Your task to perform on an android device: open the mobile data screen to see how much data has been used Image 0: 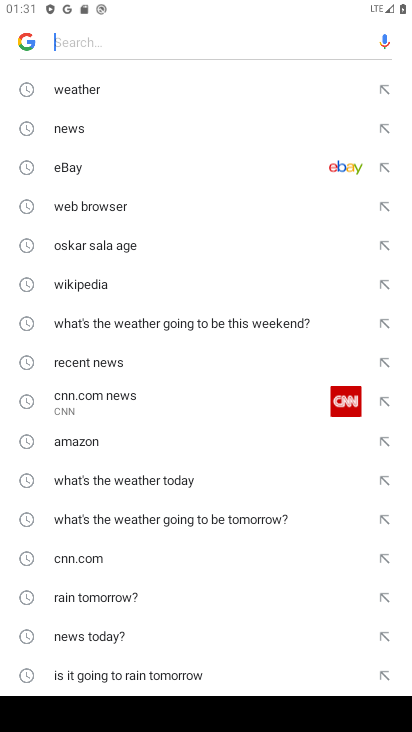
Step 0: press home button
Your task to perform on an android device: open the mobile data screen to see how much data has been used Image 1: 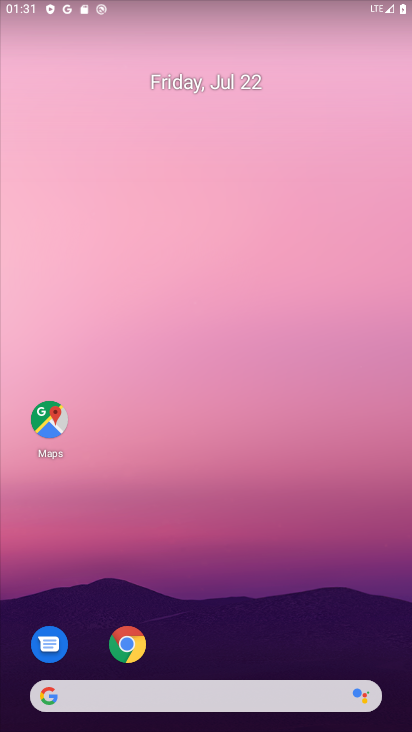
Step 1: drag from (51, 665) to (98, 6)
Your task to perform on an android device: open the mobile data screen to see how much data has been used Image 2: 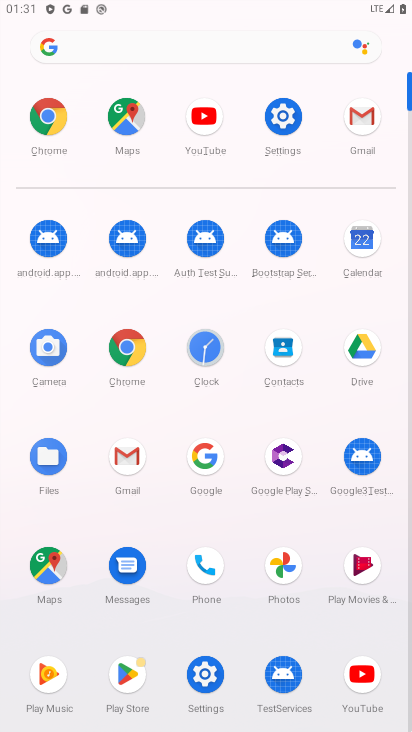
Step 2: click (292, 118)
Your task to perform on an android device: open the mobile data screen to see how much data has been used Image 3: 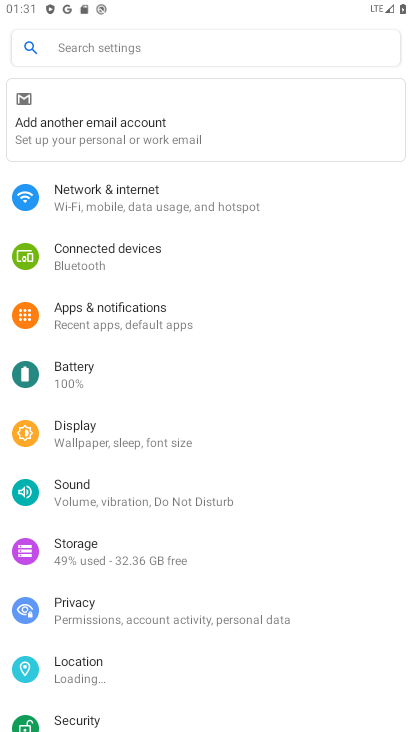
Step 3: click (181, 195)
Your task to perform on an android device: open the mobile data screen to see how much data has been used Image 4: 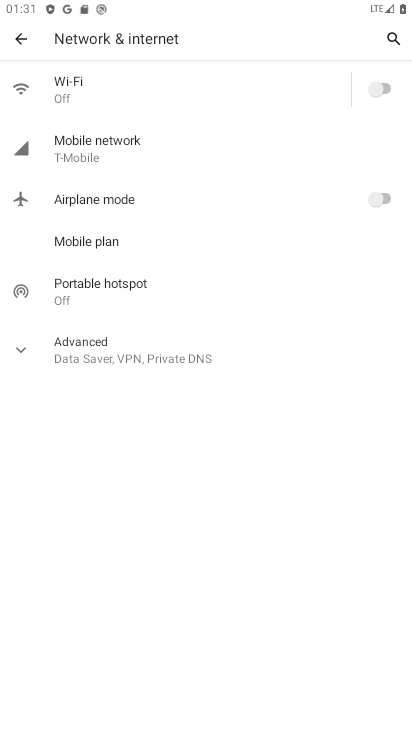
Step 4: click (183, 147)
Your task to perform on an android device: open the mobile data screen to see how much data has been used Image 5: 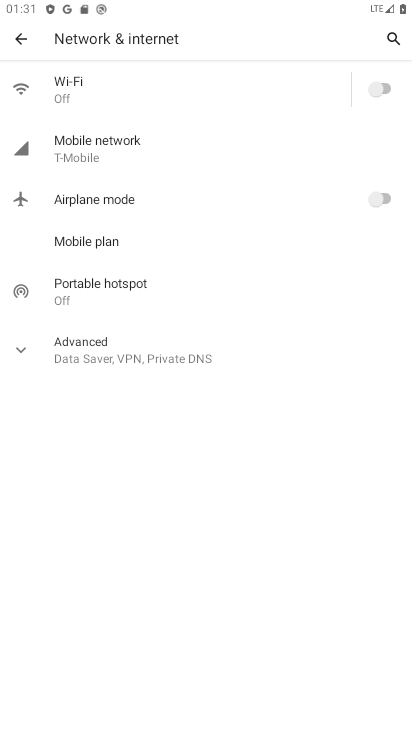
Step 5: click (183, 147)
Your task to perform on an android device: open the mobile data screen to see how much data has been used Image 6: 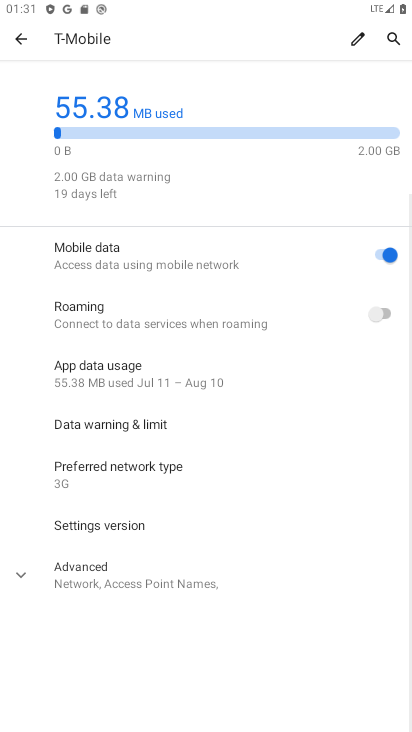
Step 6: task complete